Your task to perform on an android device: Turn off the flashlight Image 0: 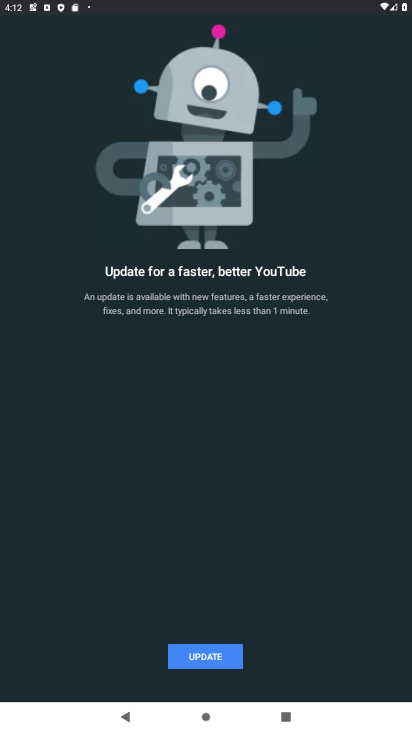
Step 0: press home button
Your task to perform on an android device: Turn off the flashlight Image 1: 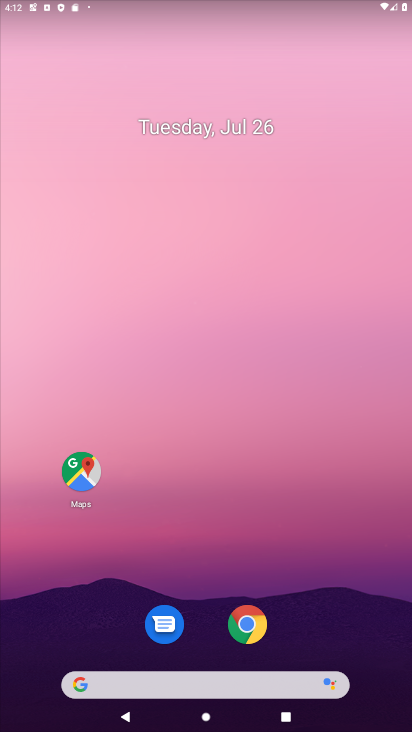
Step 1: drag from (207, 693) to (210, 70)
Your task to perform on an android device: Turn off the flashlight Image 2: 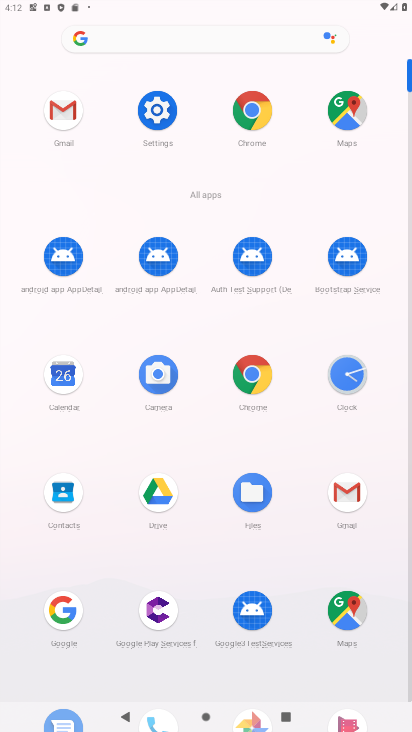
Step 2: click (158, 119)
Your task to perform on an android device: Turn off the flashlight Image 3: 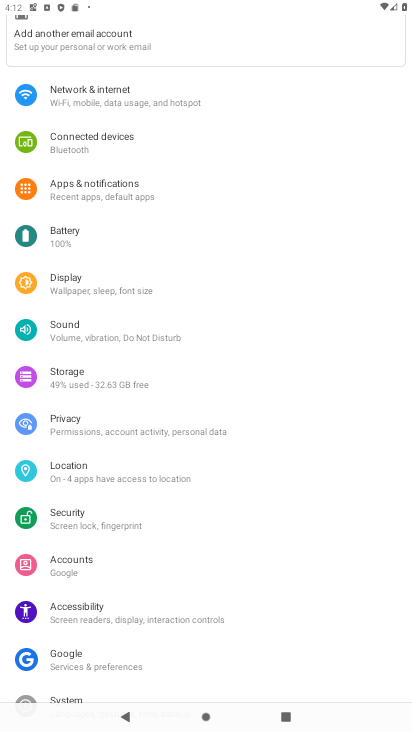
Step 3: task complete